Your task to perform on an android device: Go to internet settings Image 0: 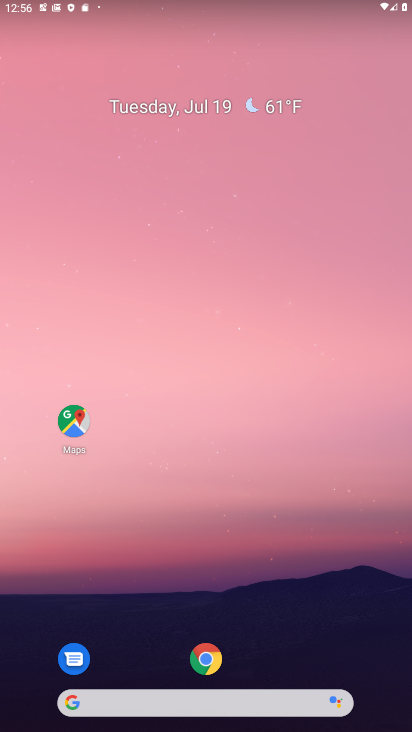
Step 0: drag from (377, 700) to (280, 148)
Your task to perform on an android device: Go to internet settings Image 1: 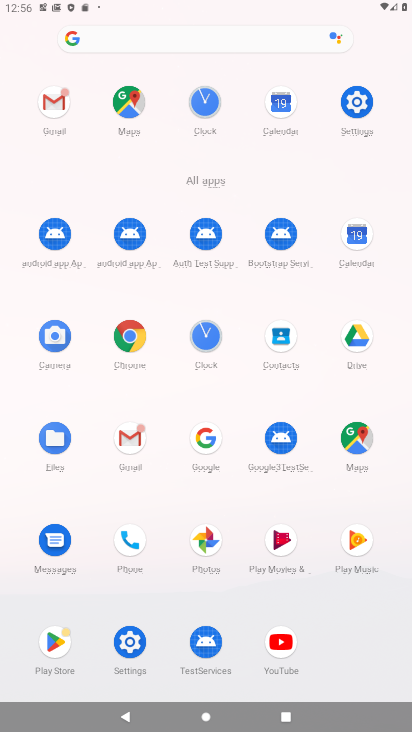
Step 1: click (362, 96)
Your task to perform on an android device: Go to internet settings Image 2: 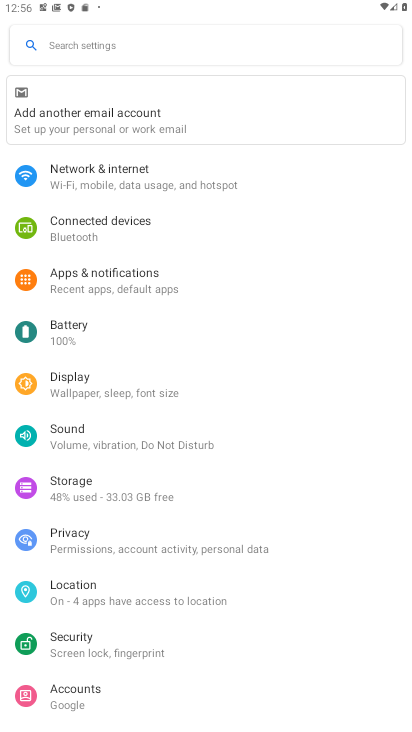
Step 2: click (73, 172)
Your task to perform on an android device: Go to internet settings Image 3: 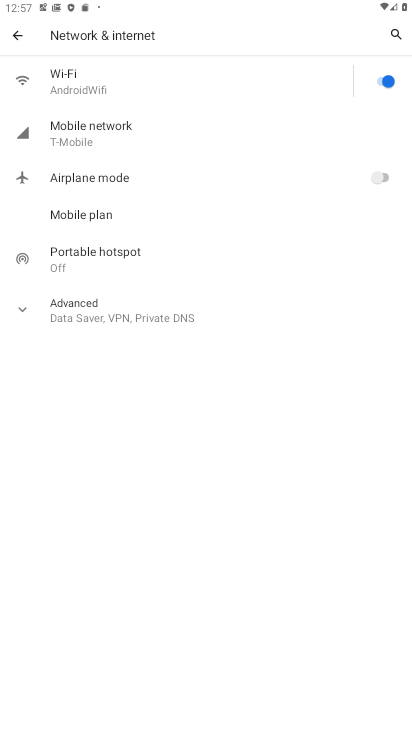
Step 3: click (22, 300)
Your task to perform on an android device: Go to internet settings Image 4: 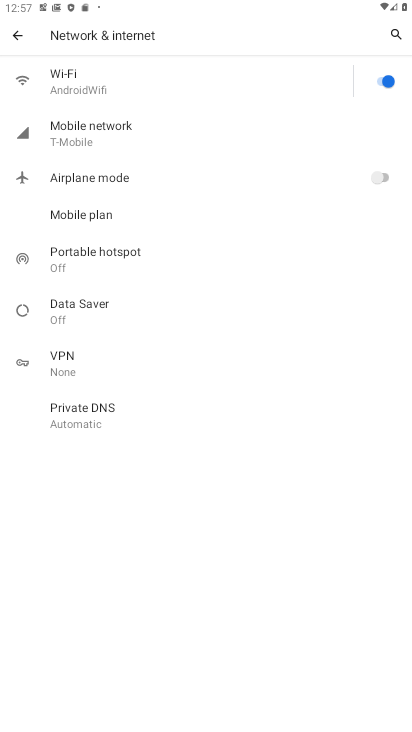
Step 4: task complete